Your task to perform on an android device: Search for usb-c to usb-b on walmart, select the first entry, and add it to the cart. Image 0: 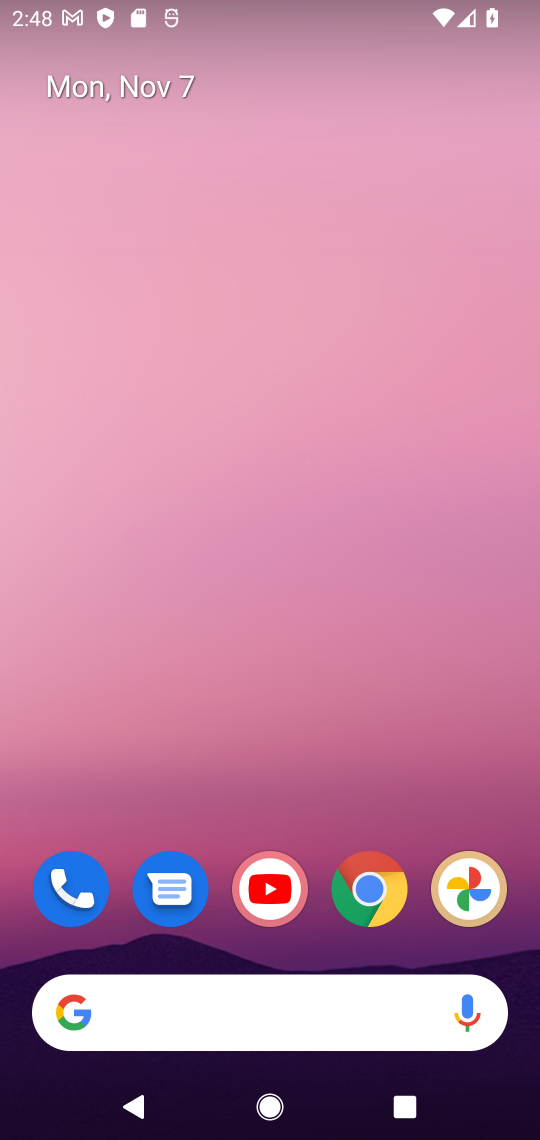
Step 0: click (364, 908)
Your task to perform on an android device: Search for usb-c to usb-b on walmart, select the first entry, and add it to the cart. Image 1: 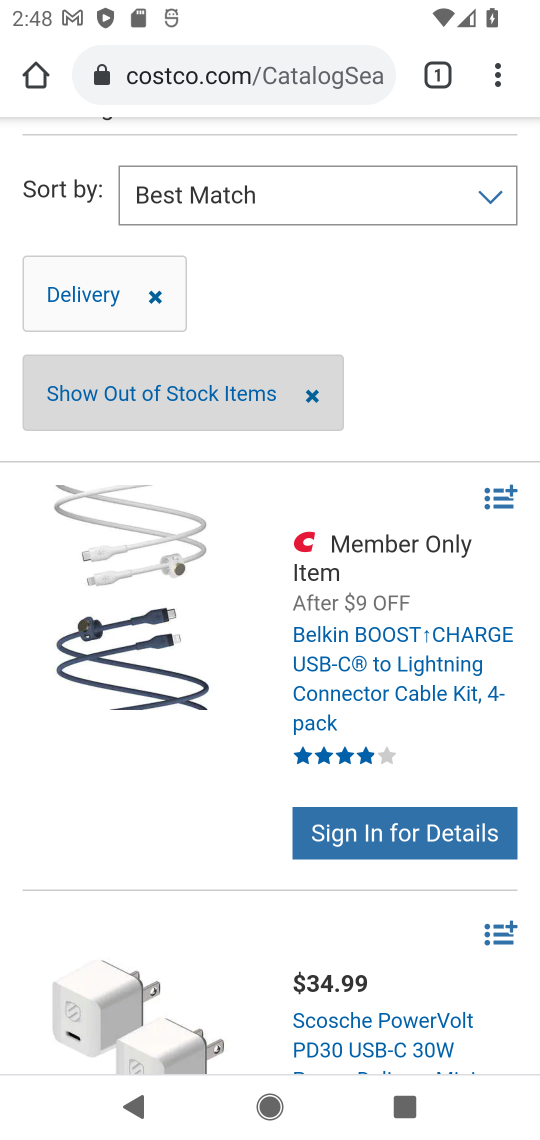
Step 1: click (250, 68)
Your task to perform on an android device: Search for usb-c to usb-b on walmart, select the first entry, and add it to the cart. Image 2: 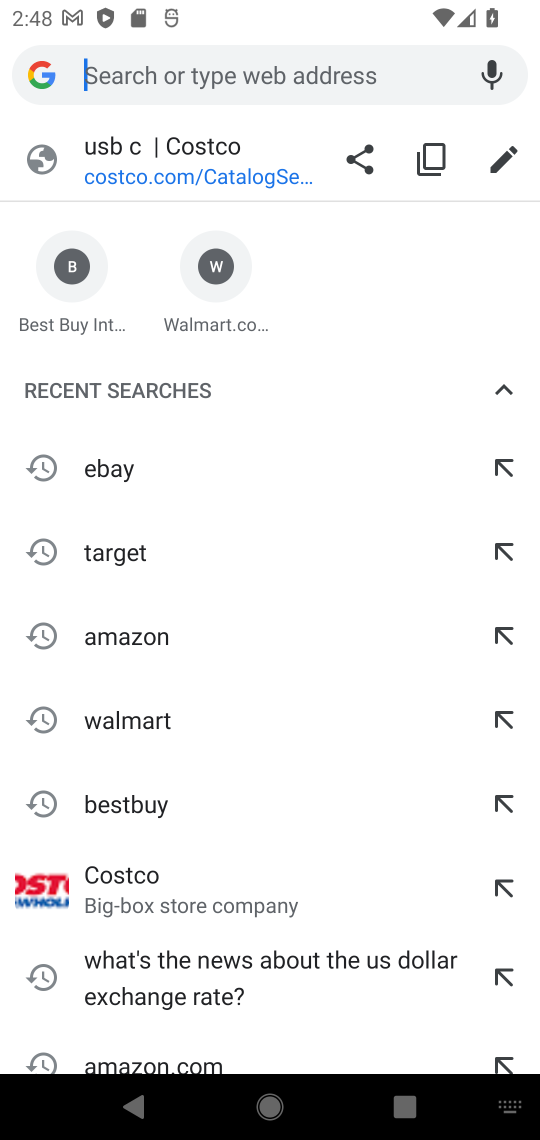
Step 2: type "walmart"
Your task to perform on an android device: Search for usb-c to usb-b on walmart, select the first entry, and add it to the cart. Image 3: 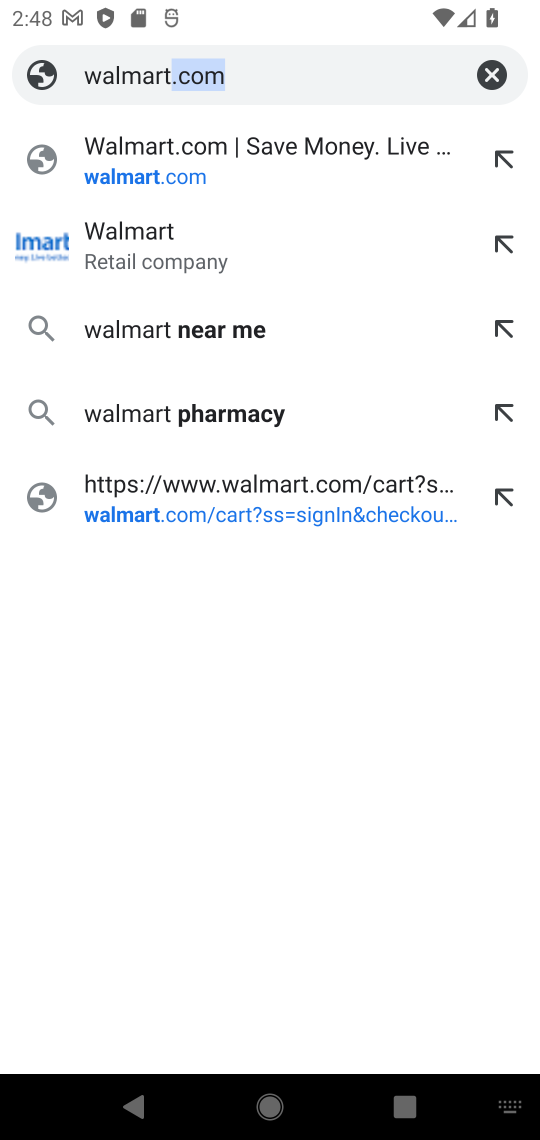
Step 3: click (179, 168)
Your task to perform on an android device: Search for usb-c to usb-b on walmart, select the first entry, and add it to the cart. Image 4: 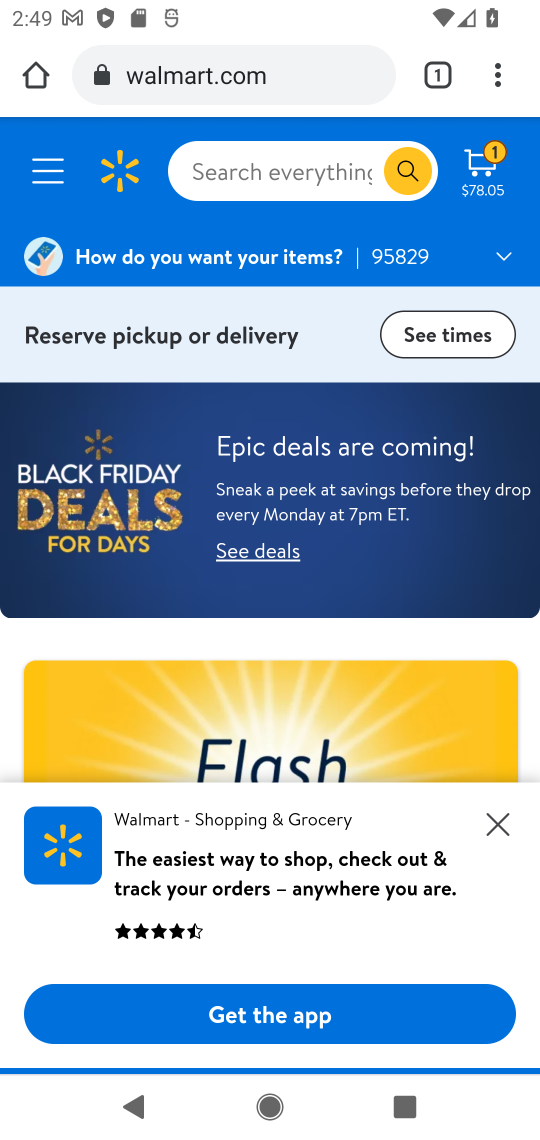
Step 4: click (274, 188)
Your task to perform on an android device: Search for usb-c to usb-b on walmart, select the first entry, and add it to the cart. Image 5: 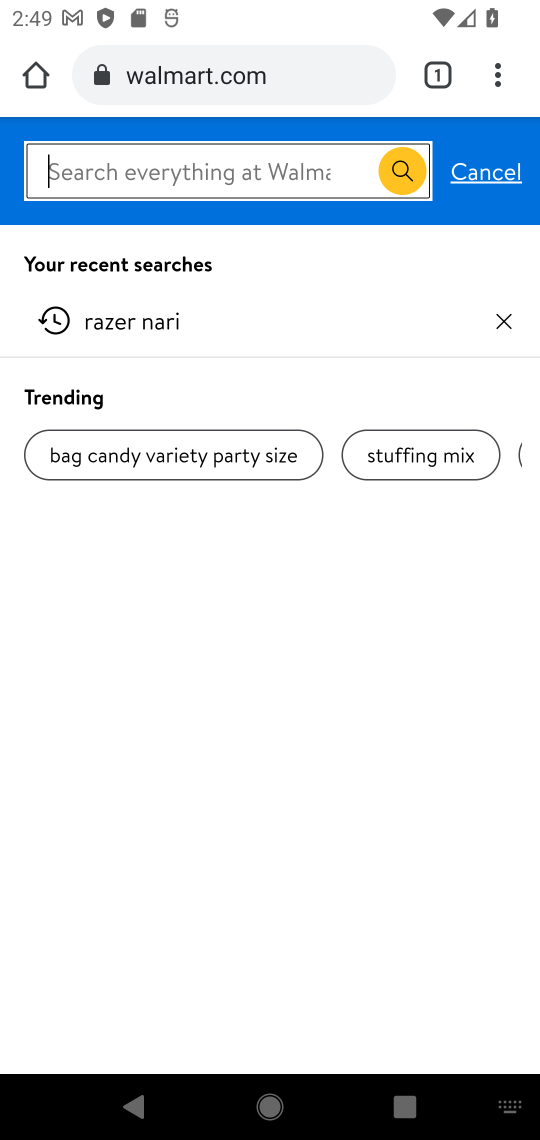
Step 5: type "usb-c to usb-b"
Your task to perform on an android device: Search for usb-c to usb-b on walmart, select the first entry, and add it to the cart. Image 6: 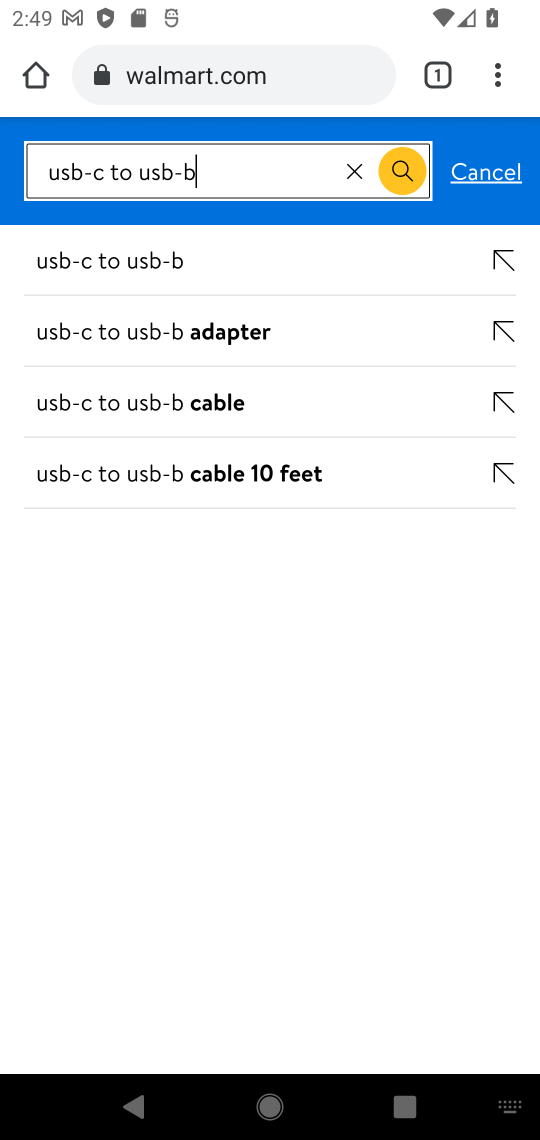
Step 6: click (264, 271)
Your task to perform on an android device: Search for usb-c to usb-b on walmart, select the first entry, and add it to the cart. Image 7: 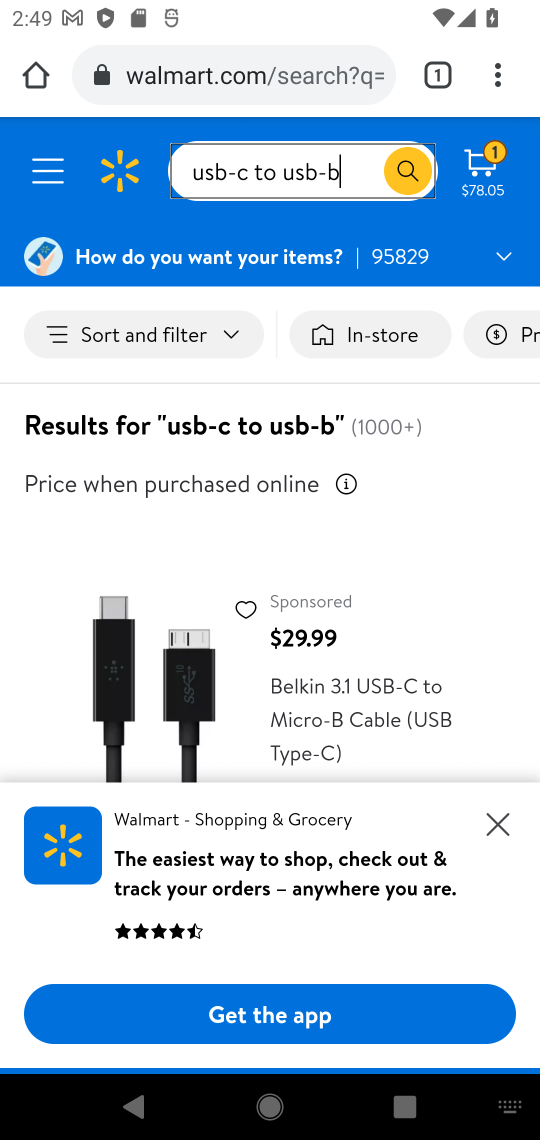
Step 7: click (220, 703)
Your task to perform on an android device: Search for usb-c to usb-b on walmart, select the first entry, and add it to the cart. Image 8: 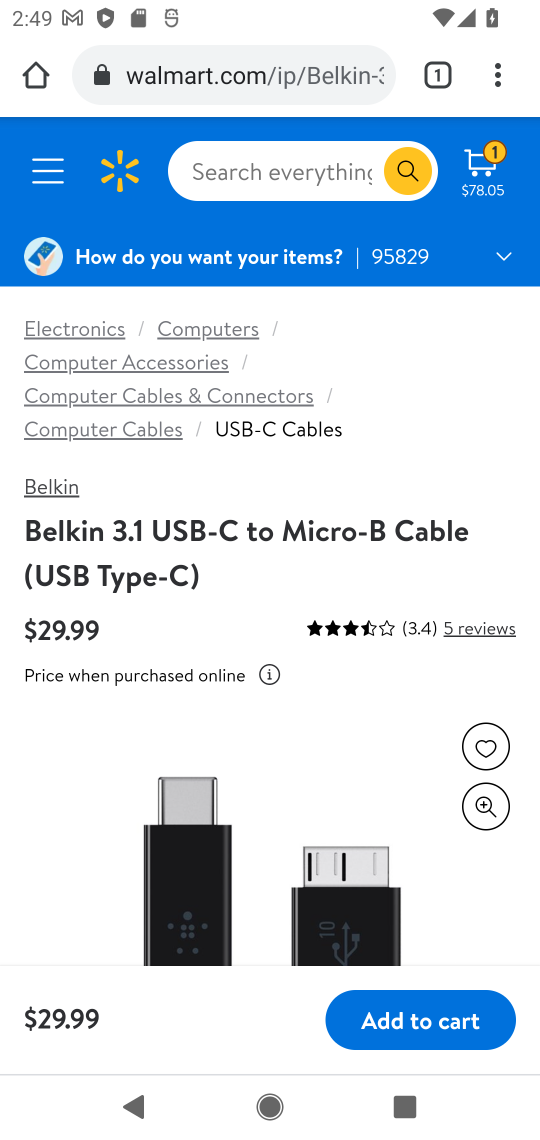
Step 8: click (474, 1027)
Your task to perform on an android device: Search for usb-c to usb-b on walmart, select the first entry, and add it to the cart. Image 9: 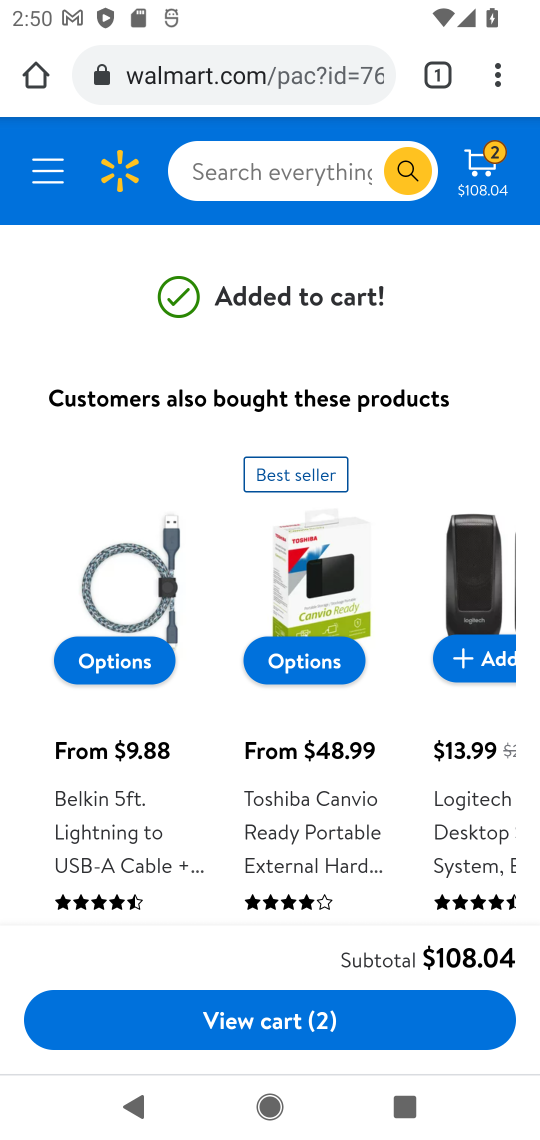
Step 9: task complete